Your task to perform on an android device: turn off sleep mode Image 0: 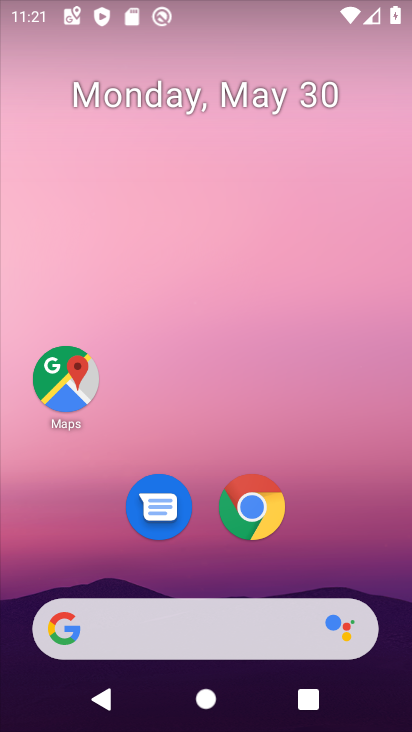
Step 0: drag from (344, 529) to (313, 37)
Your task to perform on an android device: turn off sleep mode Image 1: 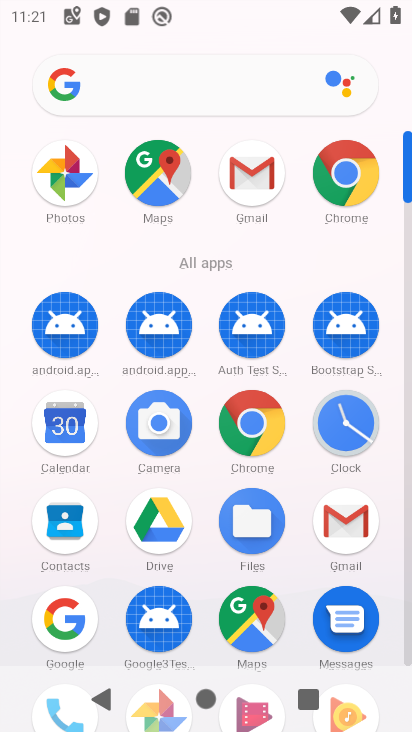
Step 1: drag from (96, 580) to (87, 353)
Your task to perform on an android device: turn off sleep mode Image 2: 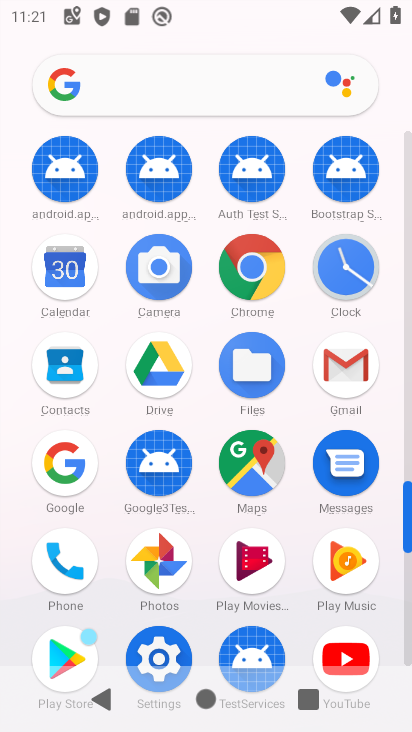
Step 2: click (161, 642)
Your task to perform on an android device: turn off sleep mode Image 3: 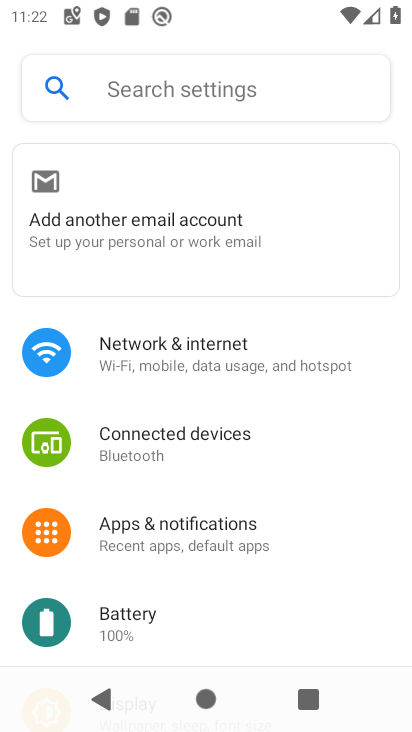
Step 3: drag from (272, 618) to (277, 229)
Your task to perform on an android device: turn off sleep mode Image 4: 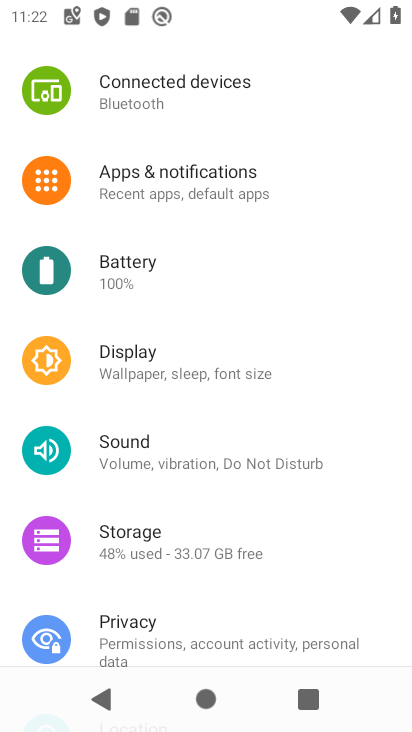
Step 4: click (174, 375)
Your task to perform on an android device: turn off sleep mode Image 5: 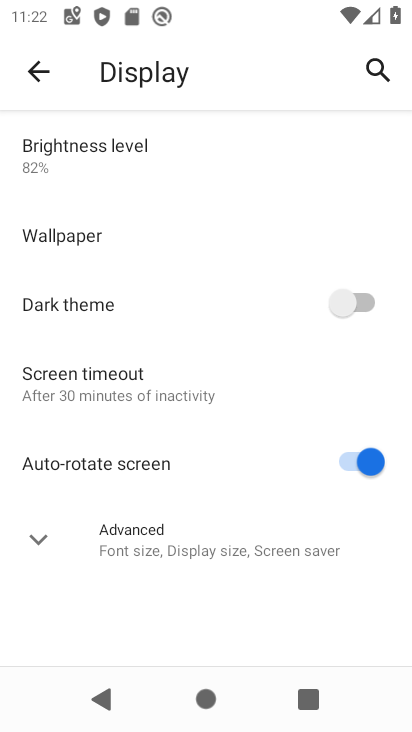
Step 5: task complete